Your task to perform on an android device: turn smart compose on in the gmail app Image 0: 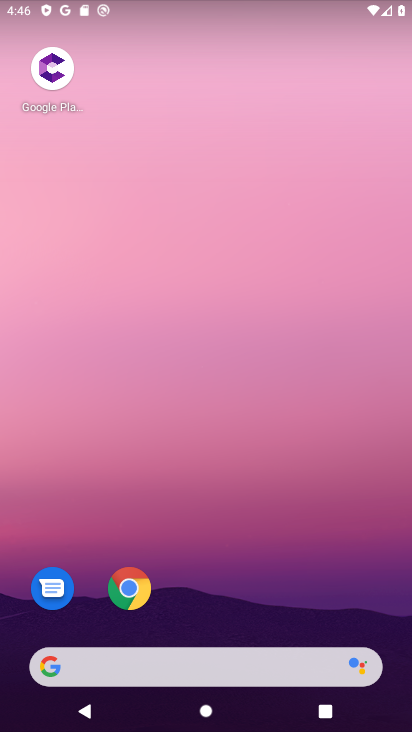
Step 0: drag from (319, 564) to (350, 157)
Your task to perform on an android device: turn smart compose on in the gmail app Image 1: 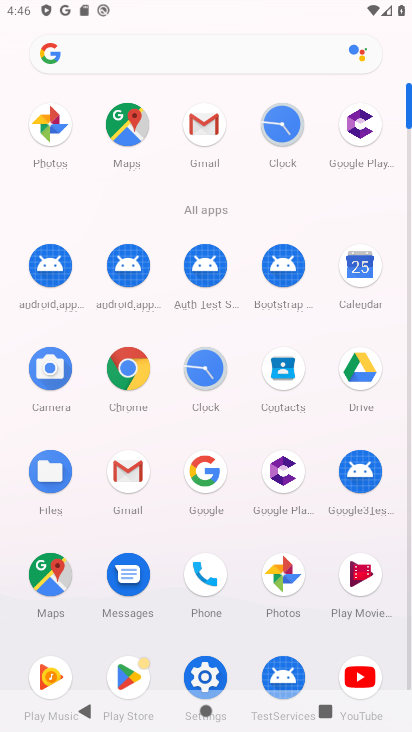
Step 1: click (200, 129)
Your task to perform on an android device: turn smart compose on in the gmail app Image 2: 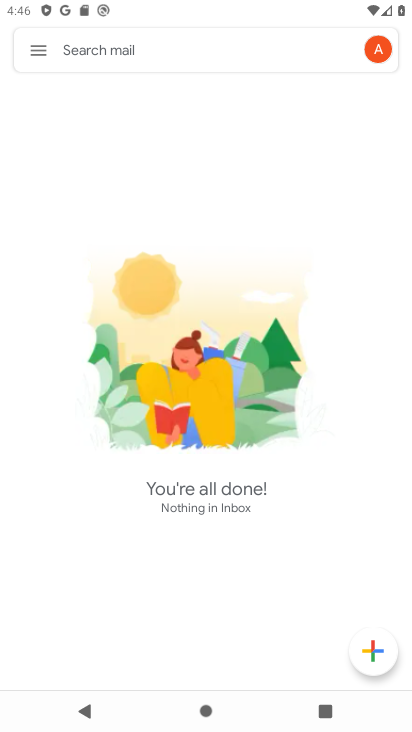
Step 2: task complete